Your task to perform on an android device: toggle show notifications on the lock screen Image 0: 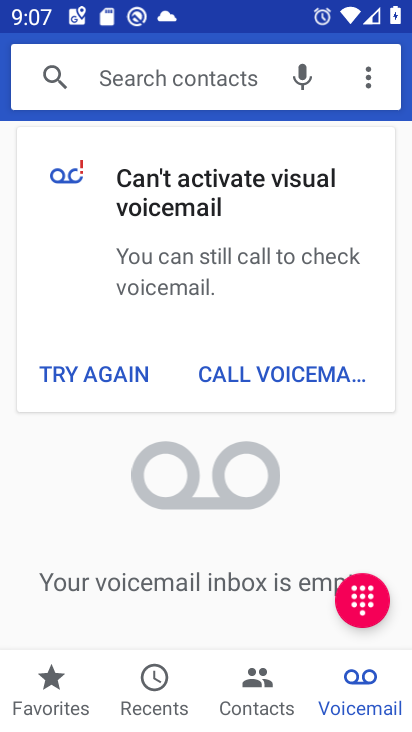
Step 0: press home button
Your task to perform on an android device: toggle show notifications on the lock screen Image 1: 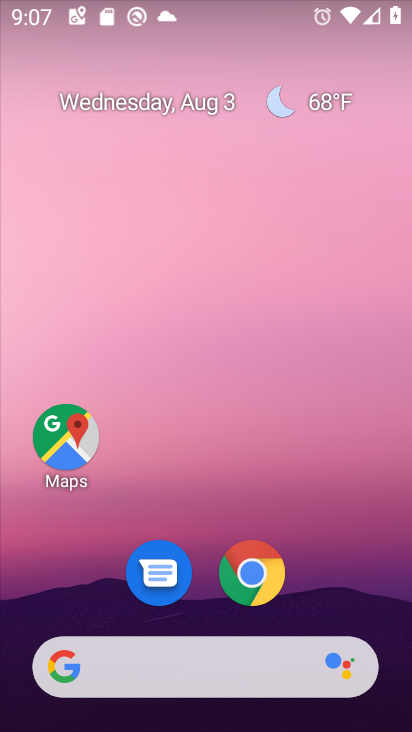
Step 1: drag from (351, 621) to (281, 16)
Your task to perform on an android device: toggle show notifications on the lock screen Image 2: 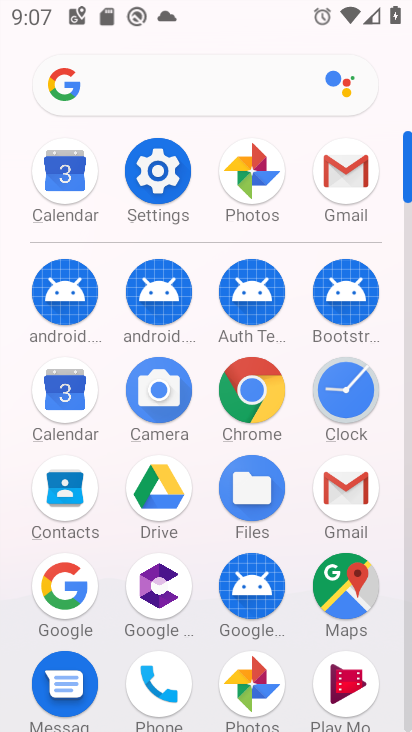
Step 2: click (156, 175)
Your task to perform on an android device: toggle show notifications on the lock screen Image 3: 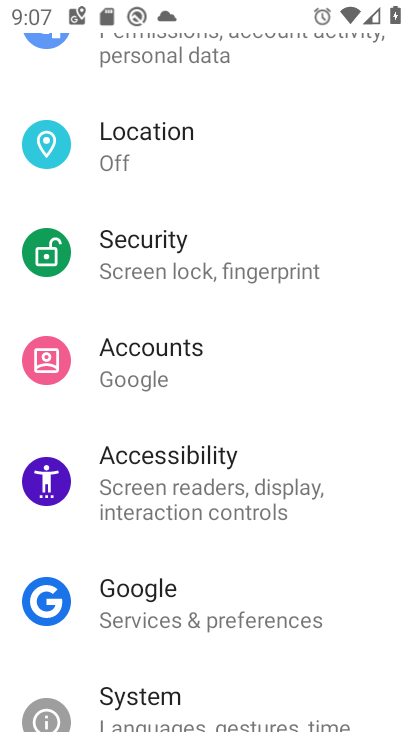
Step 3: click (349, 490)
Your task to perform on an android device: toggle show notifications on the lock screen Image 4: 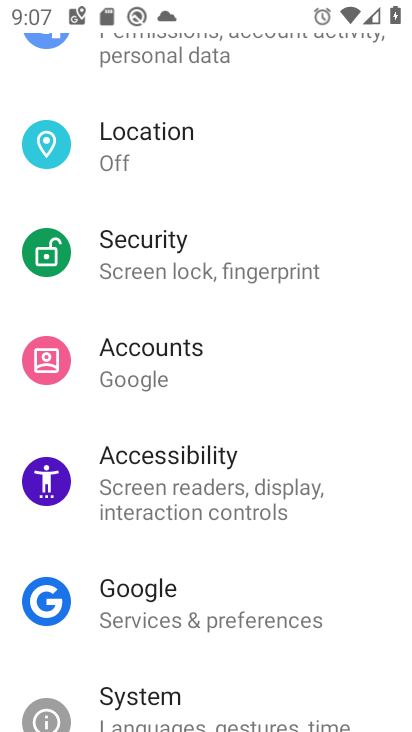
Step 4: drag from (358, 182) to (362, 586)
Your task to perform on an android device: toggle show notifications on the lock screen Image 5: 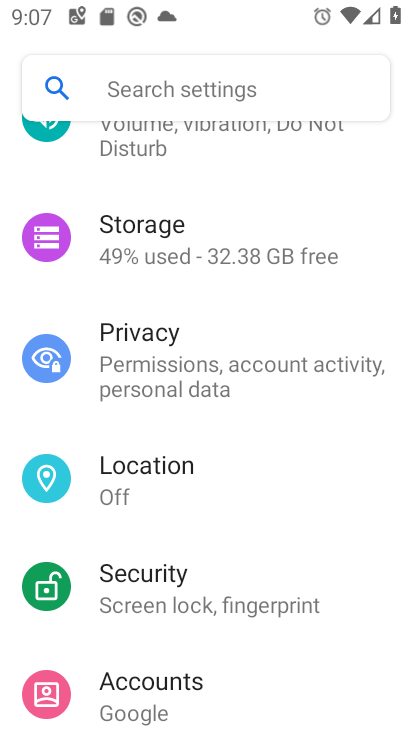
Step 5: drag from (368, 257) to (372, 585)
Your task to perform on an android device: toggle show notifications on the lock screen Image 6: 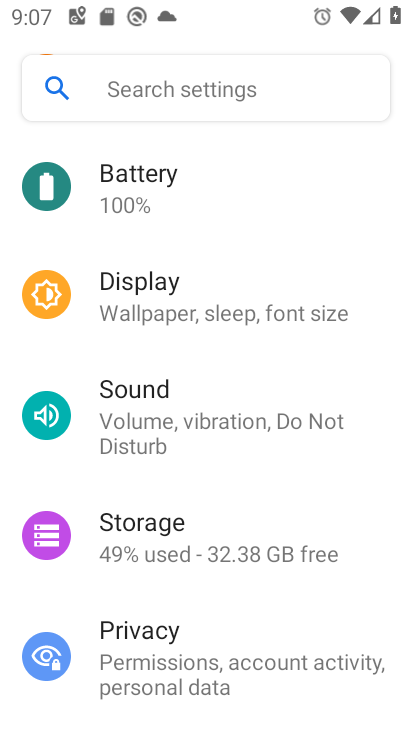
Step 6: drag from (345, 241) to (352, 608)
Your task to perform on an android device: toggle show notifications on the lock screen Image 7: 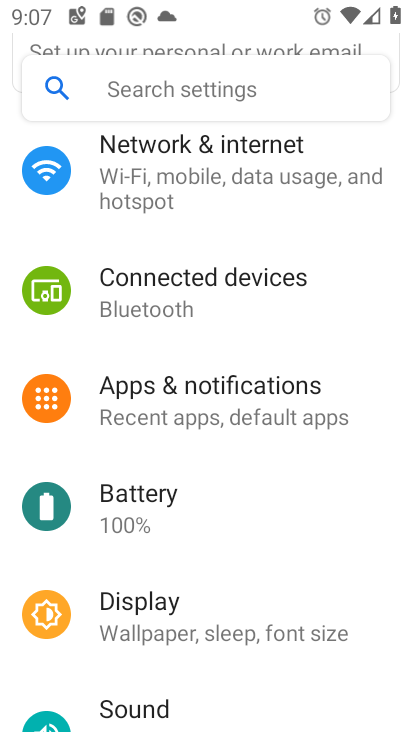
Step 7: click (216, 390)
Your task to perform on an android device: toggle show notifications on the lock screen Image 8: 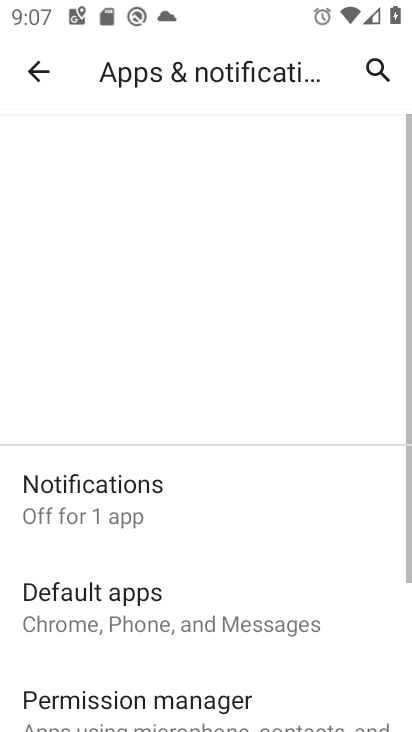
Step 8: click (131, 491)
Your task to perform on an android device: toggle show notifications on the lock screen Image 9: 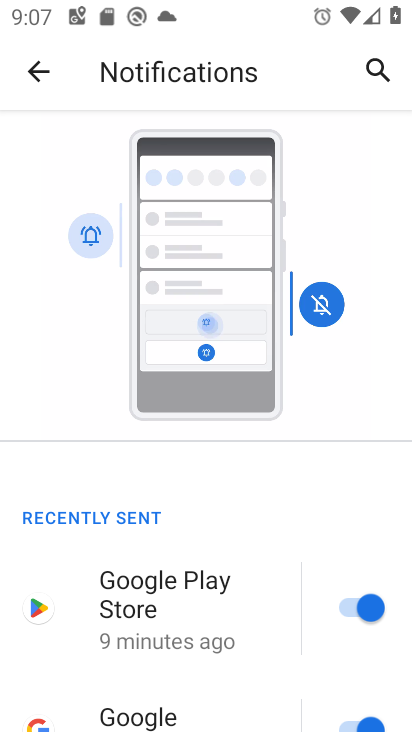
Step 9: drag from (156, 626) to (186, 164)
Your task to perform on an android device: toggle show notifications on the lock screen Image 10: 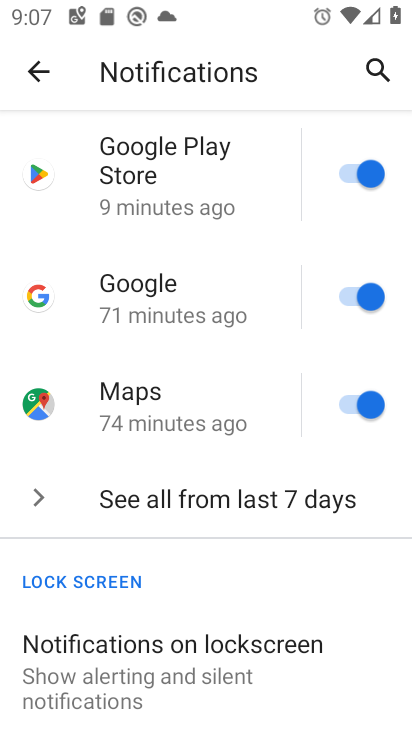
Step 10: drag from (168, 530) to (191, 143)
Your task to perform on an android device: toggle show notifications on the lock screen Image 11: 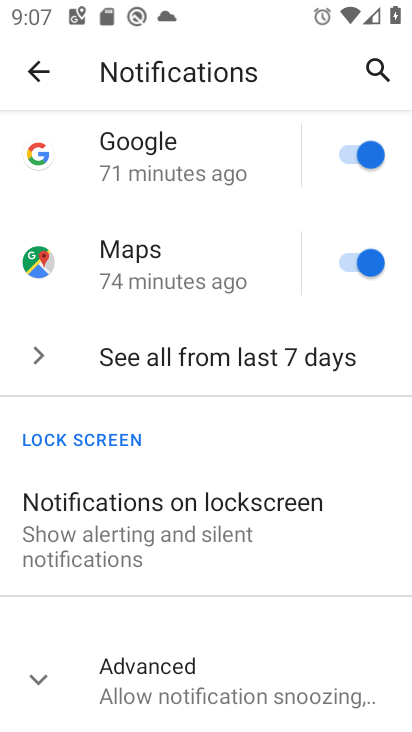
Step 11: click (105, 511)
Your task to perform on an android device: toggle show notifications on the lock screen Image 12: 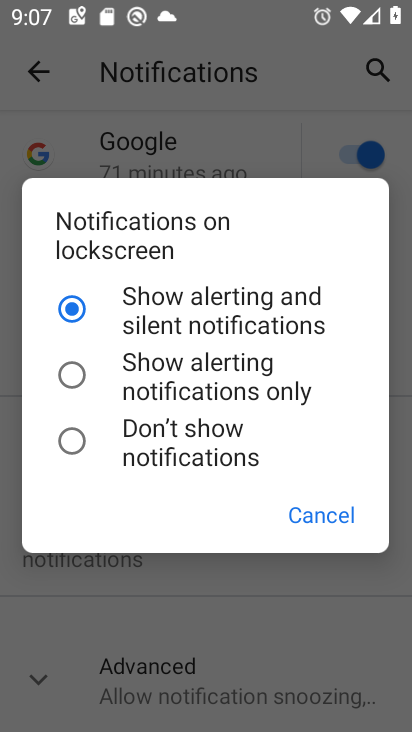
Step 12: click (85, 445)
Your task to perform on an android device: toggle show notifications on the lock screen Image 13: 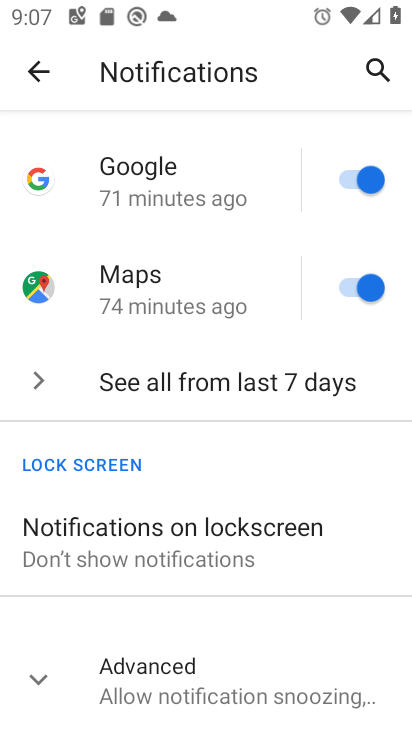
Step 13: task complete